Your task to perform on an android device: Is it going to rain tomorrow? Image 0: 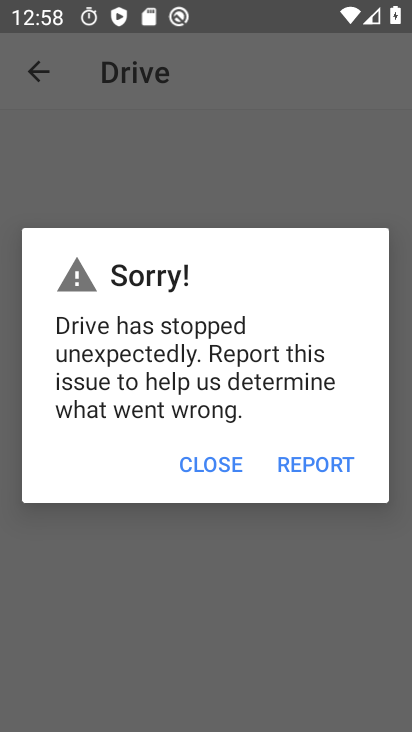
Step 0: press home button
Your task to perform on an android device: Is it going to rain tomorrow? Image 1: 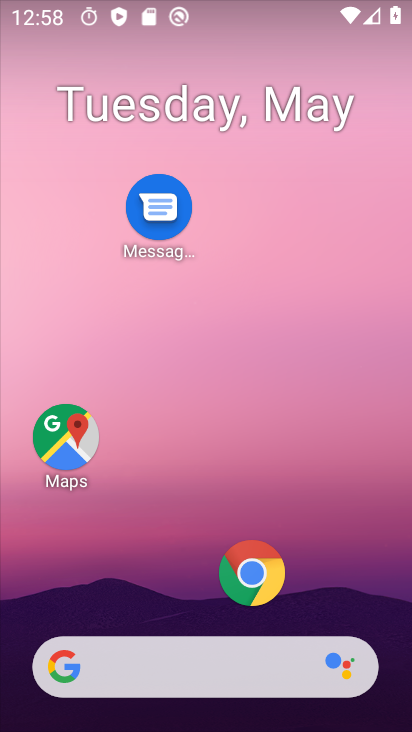
Step 1: click (238, 680)
Your task to perform on an android device: Is it going to rain tomorrow? Image 2: 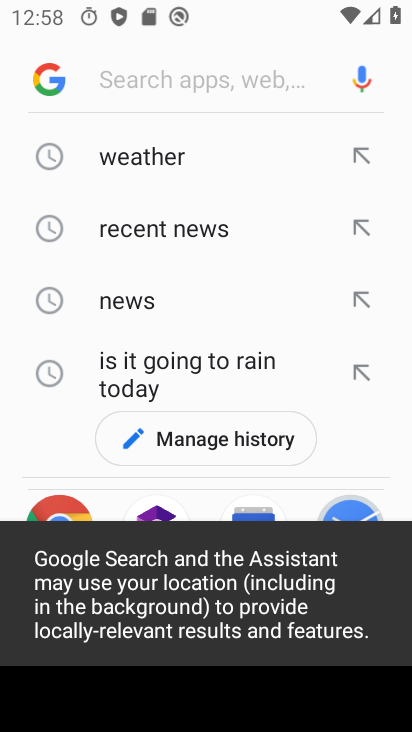
Step 2: click (174, 160)
Your task to perform on an android device: Is it going to rain tomorrow? Image 3: 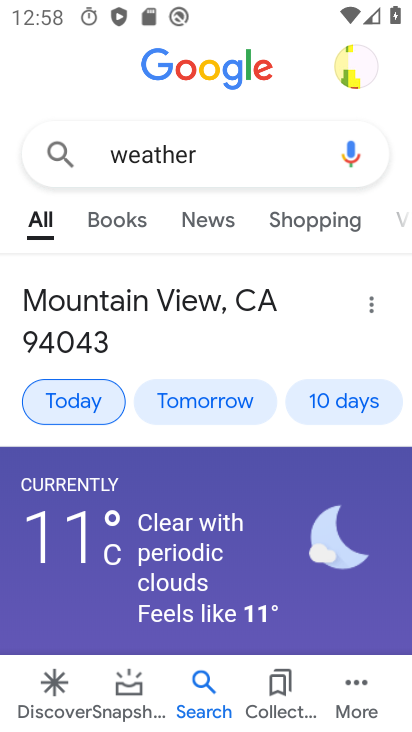
Step 3: drag from (194, 522) to (240, 232)
Your task to perform on an android device: Is it going to rain tomorrow? Image 4: 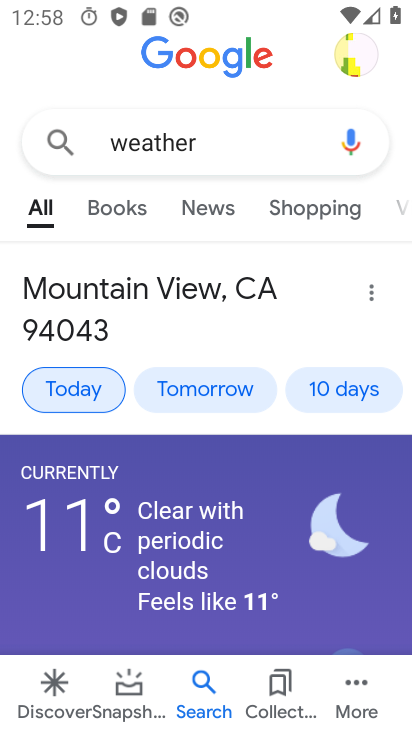
Step 4: click (227, 373)
Your task to perform on an android device: Is it going to rain tomorrow? Image 5: 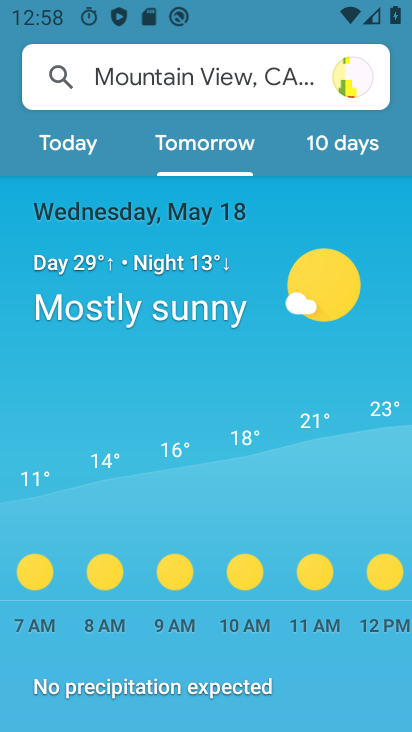
Step 5: task complete